Your task to perform on an android device: Set the phone to "Do not disturb". Image 0: 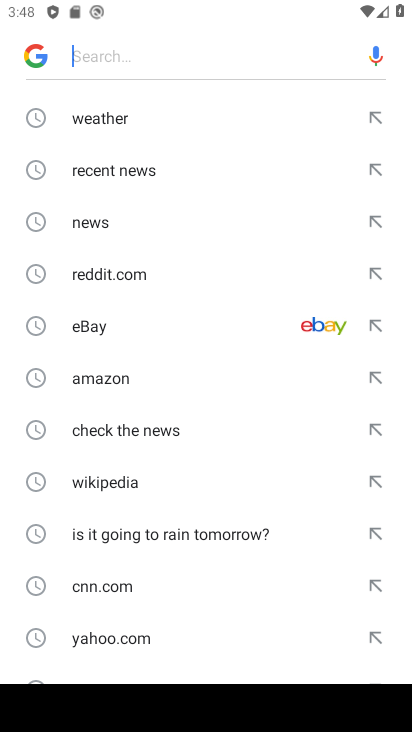
Step 0: press home button
Your task to perform on an android device: Set the phone to "Do not disturb". Image 1: 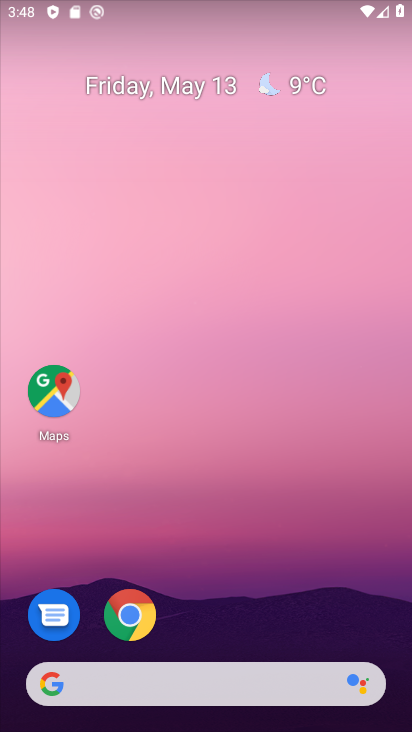
Step 1: drag from (185, 10) to (255, 645)
Your task to perform on an android device: Set the phone to "Do not disturb". Image 2: 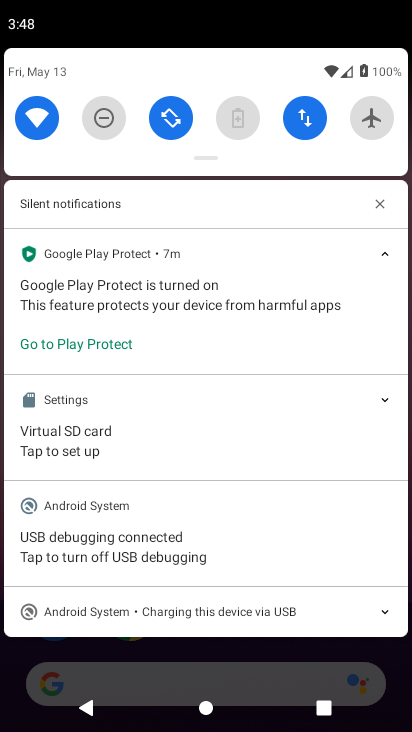
Step 2: click (107, 110)
Your task to perform on an android device: Set the phone to "Do not disturb". Image 3: 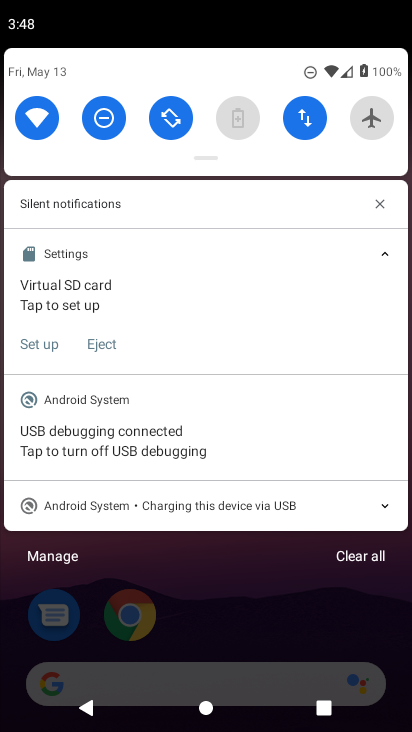
Step 3: task complete